Your task to perform on an android device: change the clock style Image 0: 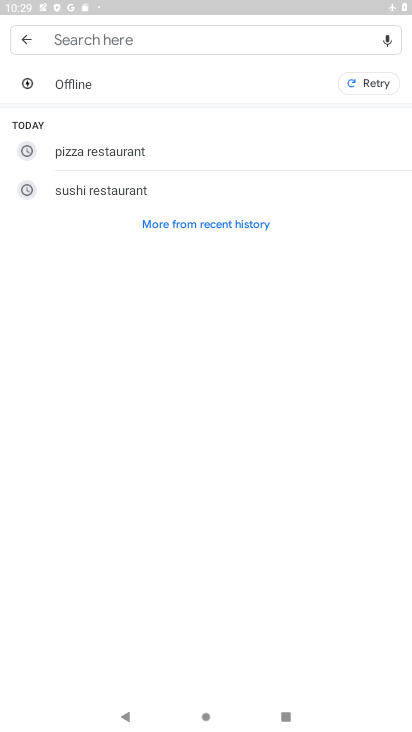
Step 0: press home button
Your task to perform on an android device: change the clock style Image 1: 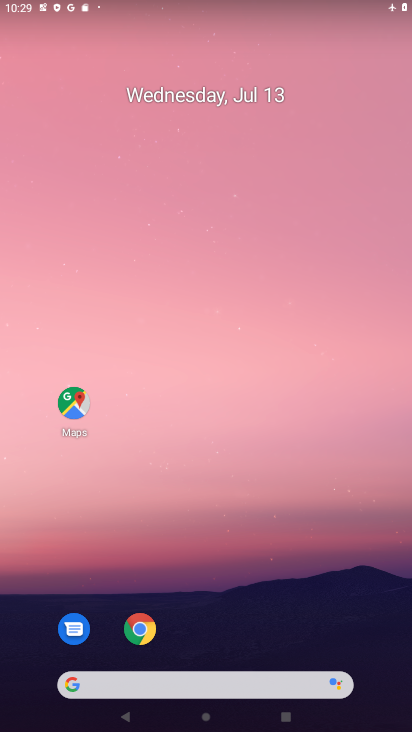
Step 1: drag from (305, 653) to (330, 82)
Your task to perform on an android device: change the clock style Image 2: 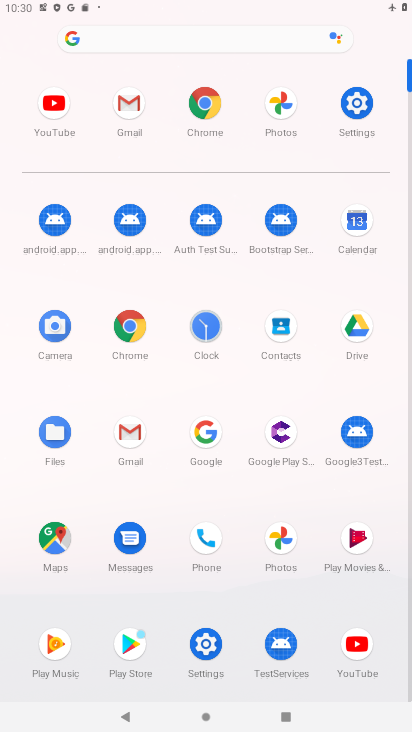
Step 2: click (362, 116)
Your task to perform on an android device: change the clock style Image 3: 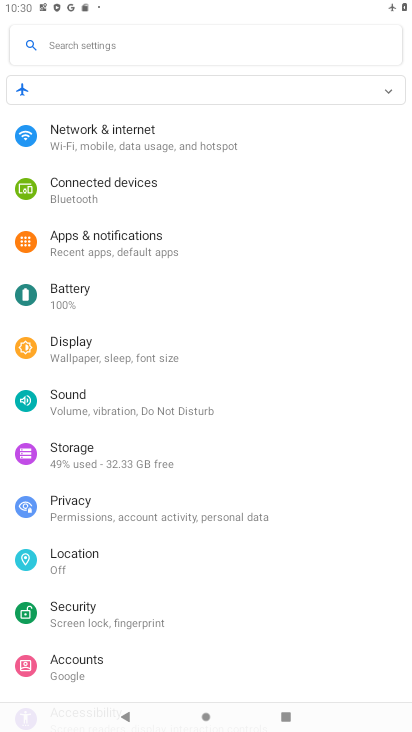
Step 3: press back button
Your task to perform on an android device: change the clock style Image 4: 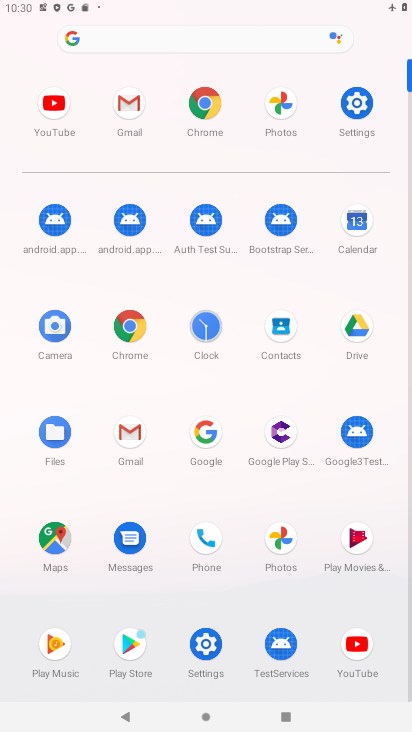
Step 4: click (201, 335)
Your task to perform on an android device: change the clock style Image 5: 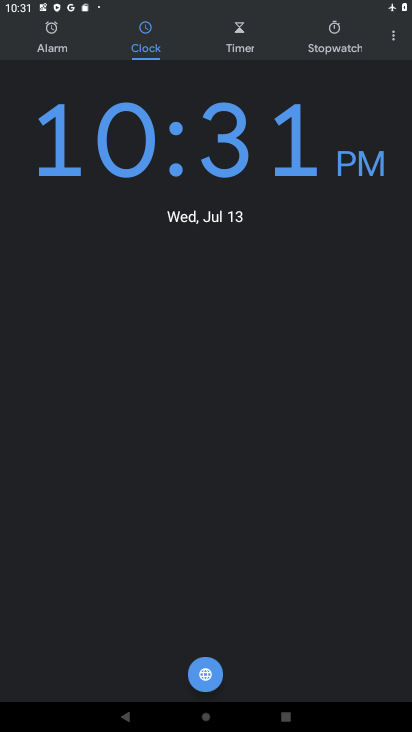
Step 5: click (379, 44)
Your task to perform on an android device: change the clock style Image 6: 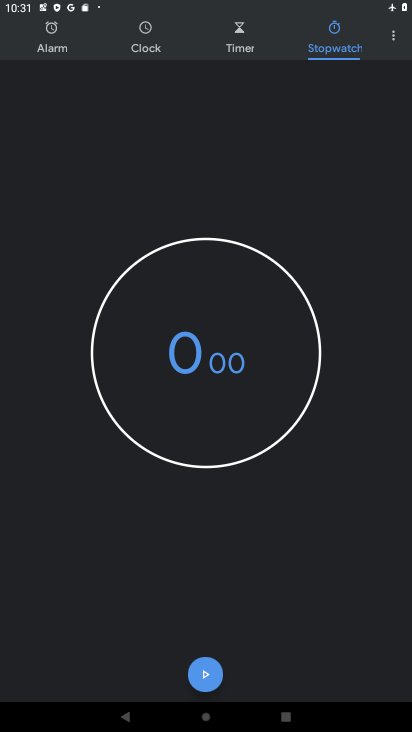
Step 6: click (393, 31)
Your task to perform on an android device: change the clock style Image 7: 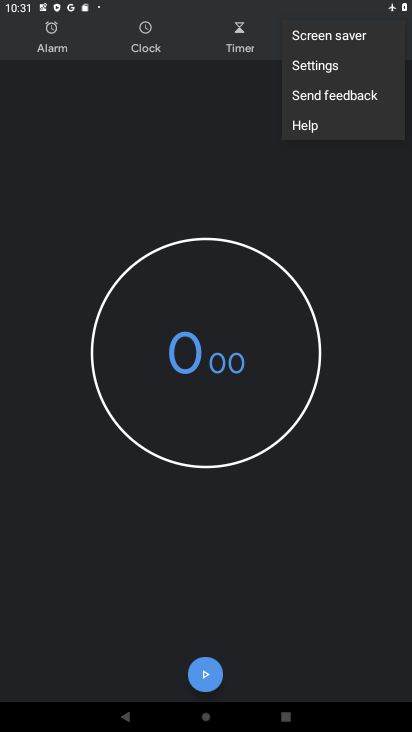
Step 7: click (330, 71)
Your task to perform on an android device: change the clock style Image 8: 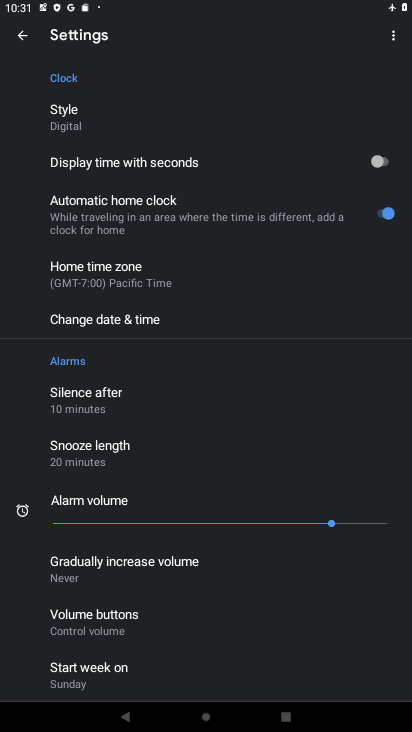
Step 8: click (180, 315)
Your task to perform on an android device: change the clock style Image 9: 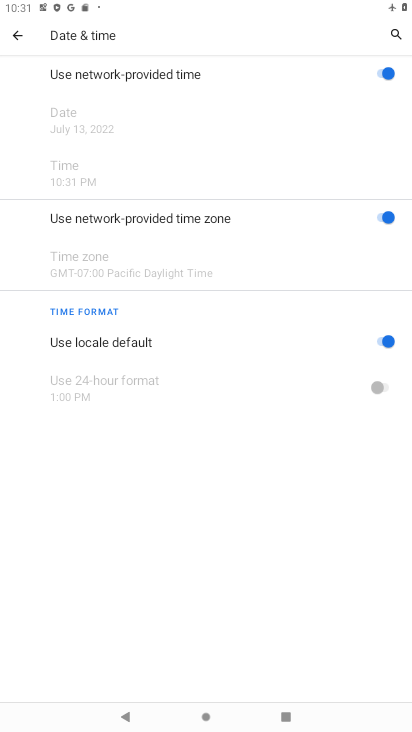
Step 9: click (375, 341)
Your task to perform on an android device: change the clock style Image 10: 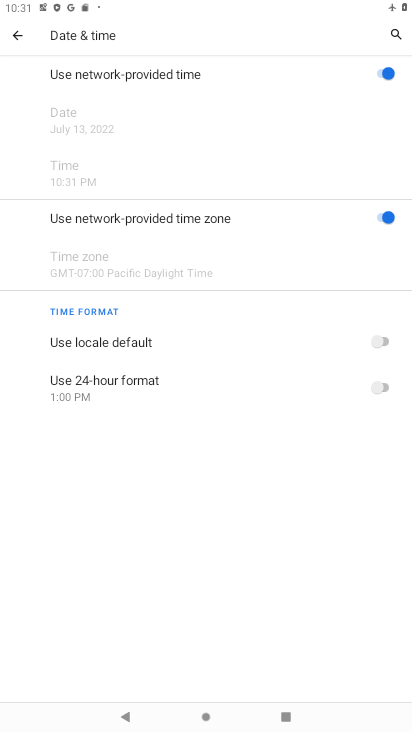
Step 10: task complete